Your task to perform on an android device: see sites visited before in the chrome app Image 0: 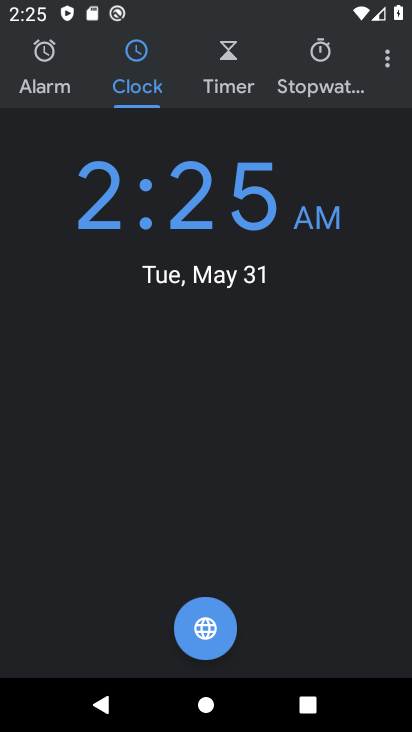
Step 0: press home button
Your task to perform on an android device: see sites visited before in the chrome app Image 1: 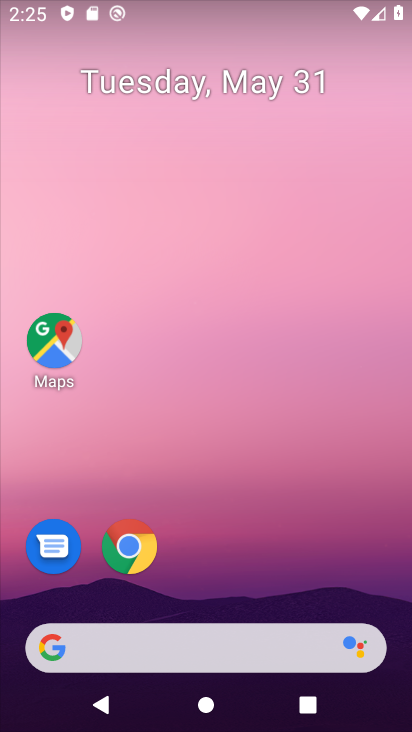
Step 1: click (120, 551)
Your task to perform on an android device: see sites visited before in the chrome app Image 2: 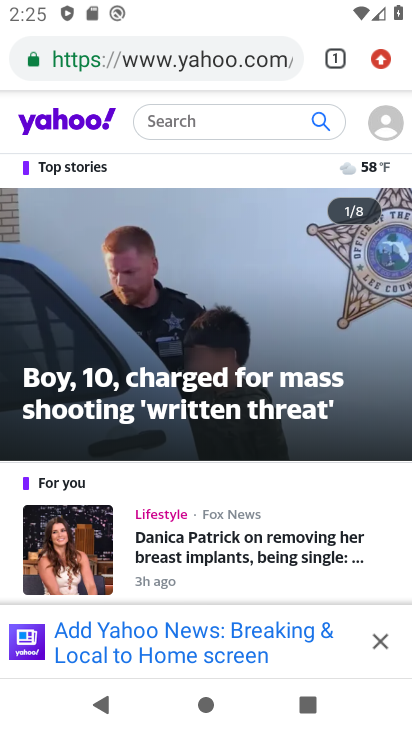
Step 2: click (382, 60)
Your task to perform on an android device: see sites visited before in the chrome app Image 3: 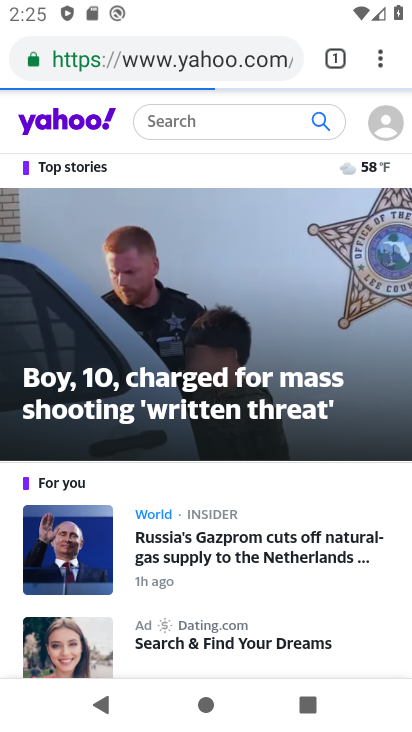
Step 3: click (382, 60)
Your task to perform on an android device: see sites visited before in the chrome app Image 4: 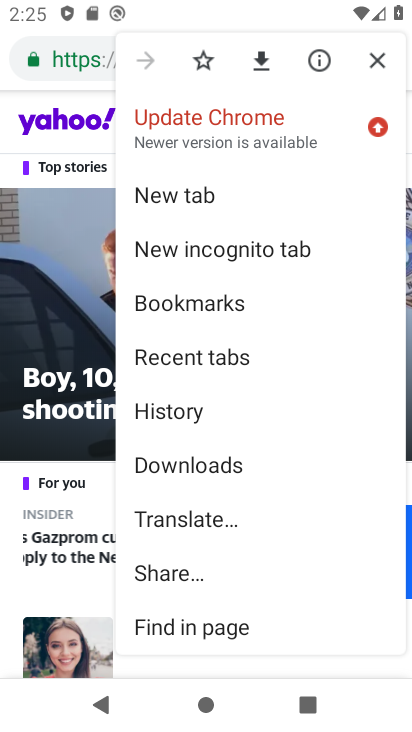
Step 4: click (183, 345)
Your task to perform on an android device: see sites visited before in the chrome app Image 5: 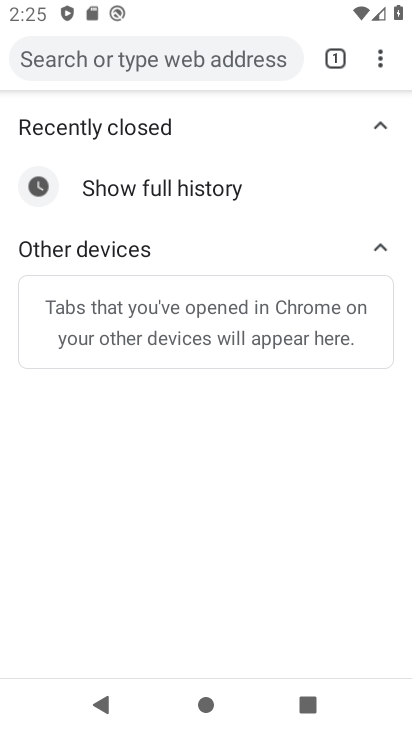
Step 5: task complete